Your task to perform on an android device: open app "Adobe Express: Graphic Design" (install if not already installed) Image 0: 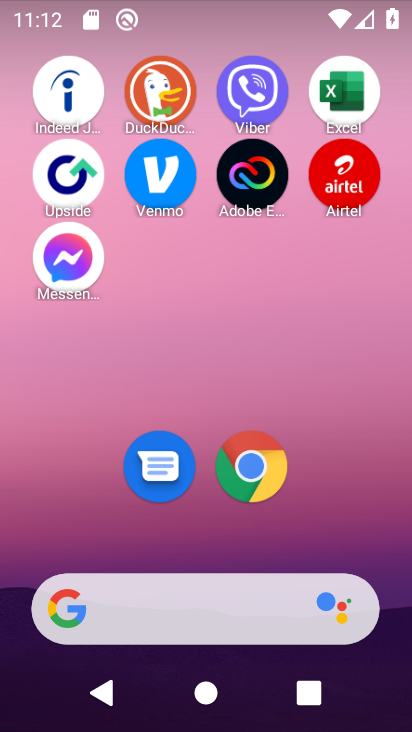
Step 0: drag from (233, 727) to (185, 50)
Your task to perform on an android device: open app "Adobe Express: Graphic Design" (install if not already installed) Image 1: 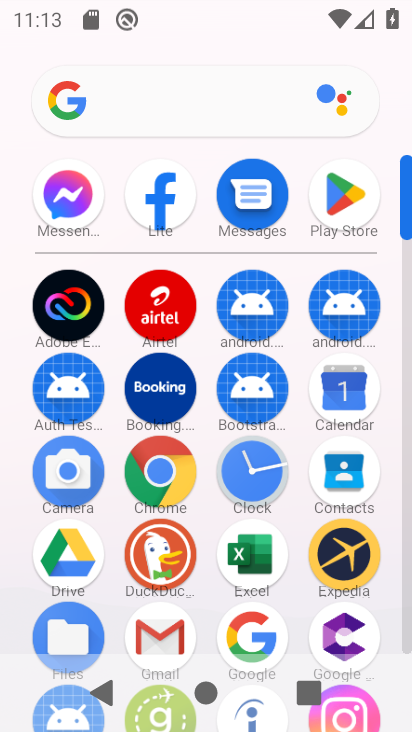
Step 1: click (344, 194)
Your task to perform on an android device: open app "Adobe Express: Graphic Design" (install if not already installed) Image 2: 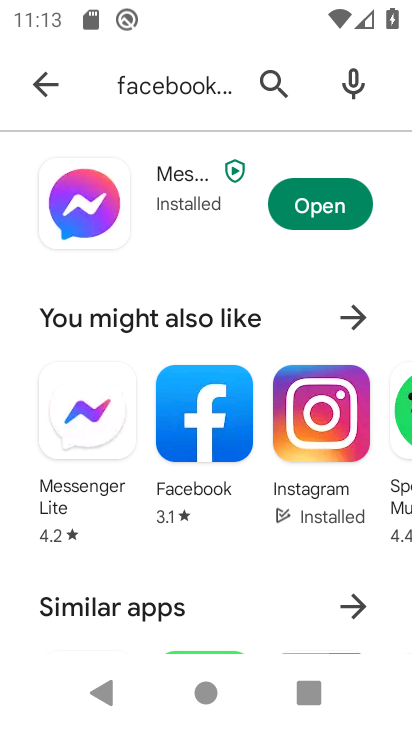
Step 2: click (272, 79)
Your task to perform on an android device: open app "Adobe Express: Graphic Design" (install if not already installed) Image 3: 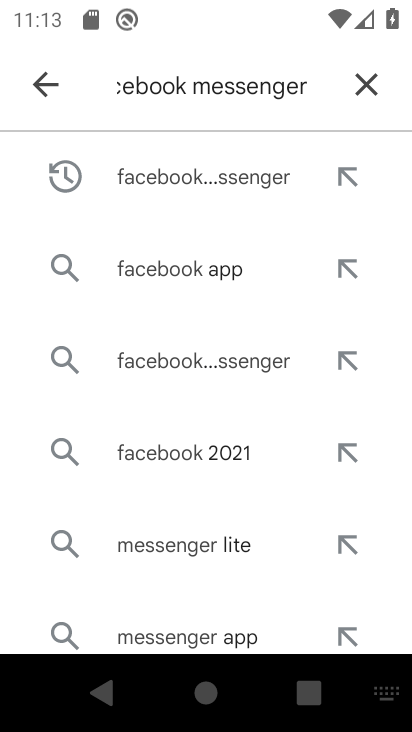
Step 3: click (373, 81)
Your task to perform on an android device: open app "Adobe Express: Graphic Design" (install if not already installed) Image 4: 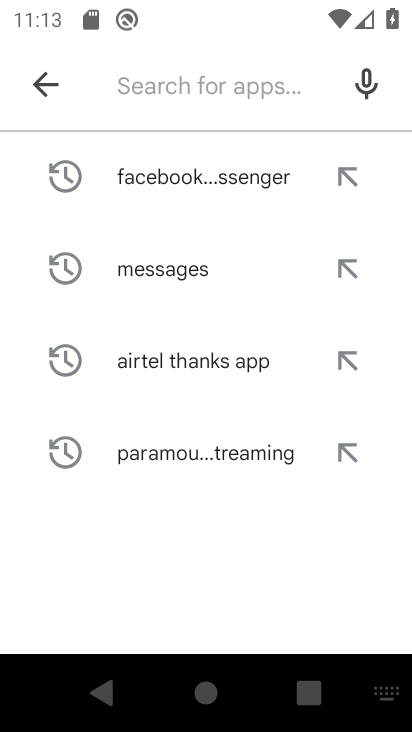
Step 4: type "Adobe Express: Graphic Design"
Your task to perform on an android device: open app "Adobe Express: Graphic Design" (install if not already installed) Image 5: 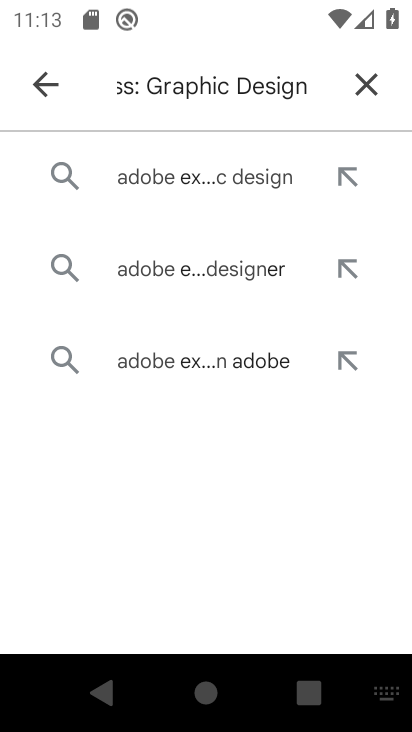
Step 5: click (261, 176)
Your task to perform on an android device: open app "Adobe Express: Graphic Design" (install if not already installed) Image 6: 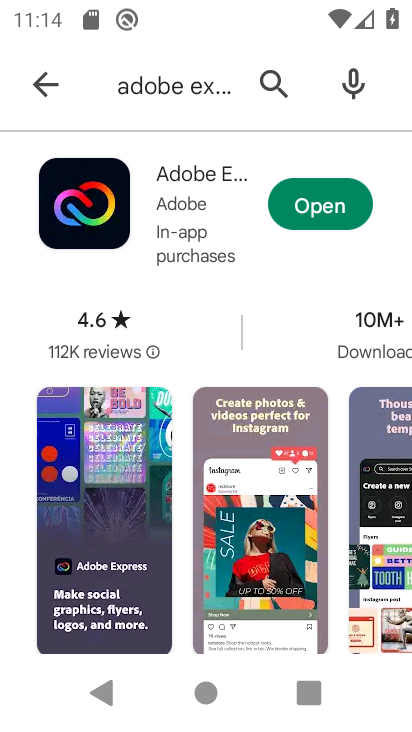
Step 6: click (324, 216)
Your task to perform on an android device: open app "Adobe Express: Graphic Design" (install if not already installed) Image 7: 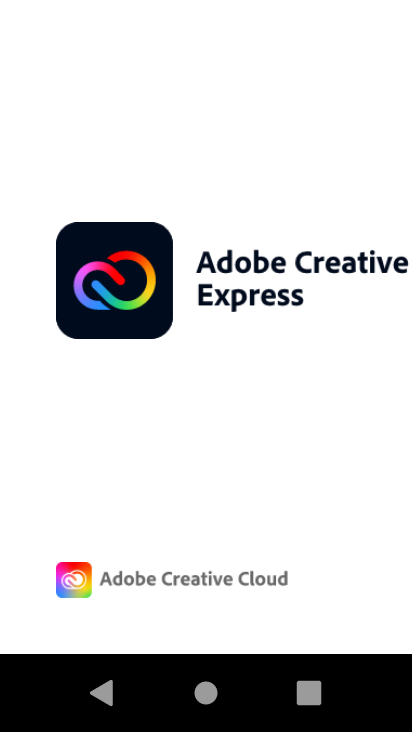
Step 7: task complete